Your task to perform on an android device: toggle improve location accuracy Image 0: 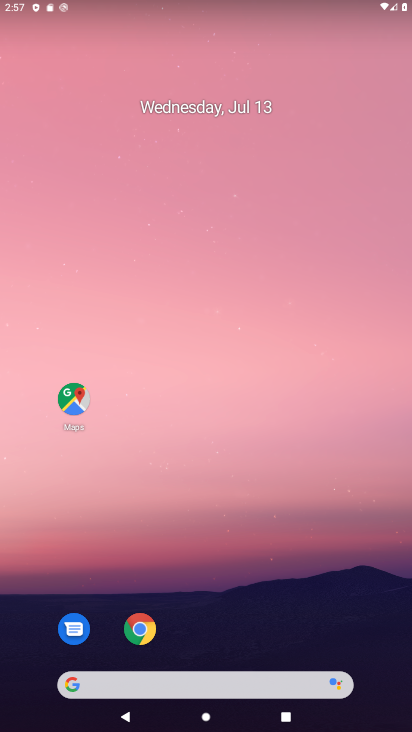
Step 0: drag from (345, 606) to (262, 262)
Your task to perform on an android device: toggle improve location accuracy Image 1: 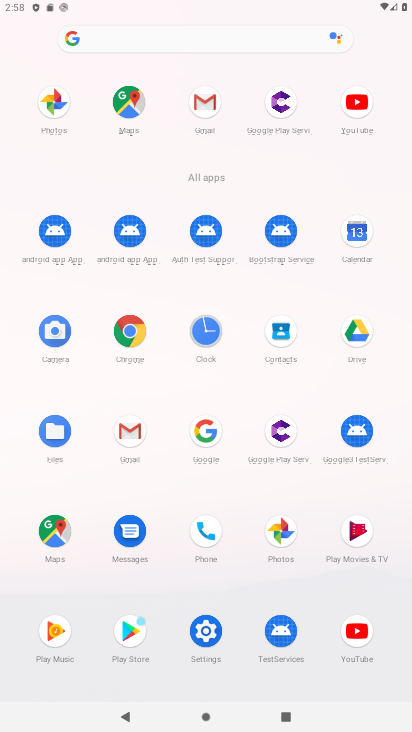
Step 1: click (209, 636)
Your task to perform on an android device: toggle improve location accuracy Image 2: 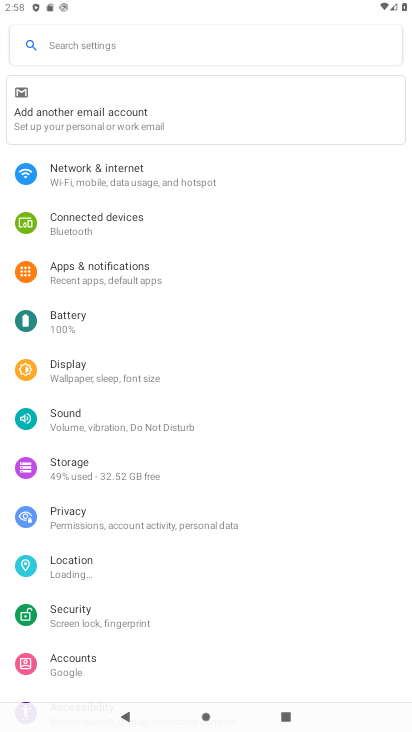
Step 2: click (209, 615)
Your task to perform on an android device: toggle improve location accuracy Image 3: 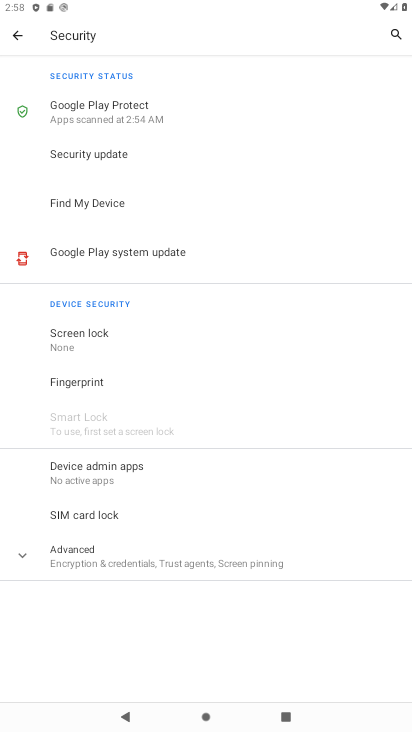
Step 3: drag from (323, 632) to (165, 654)
Your task to perform on an android device: toggle improve location accuracy Image 4: 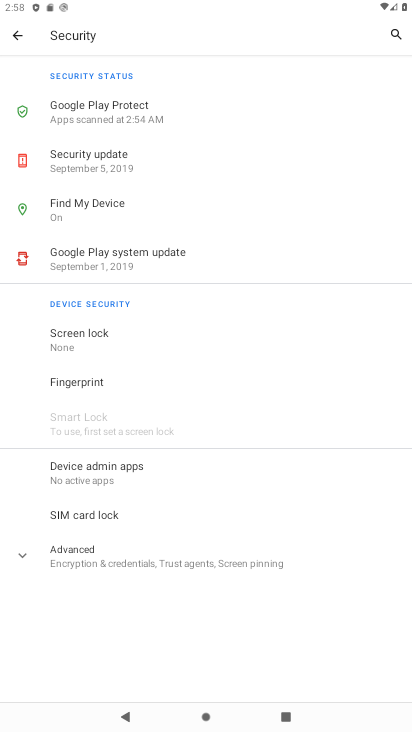
Step 4: press back button
Your task to perform on an android device: toggle improve location accuracy Image 5: 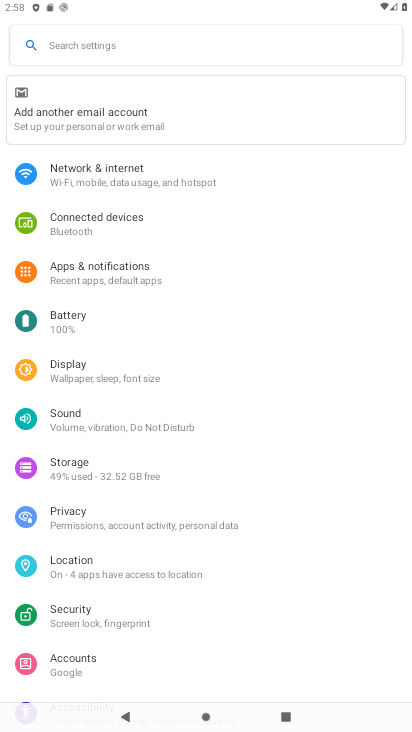
Step 5: drag from (159, 497) to (106, 325)
Your task to perform on an android device: toggle improve location accuracy Image 6: 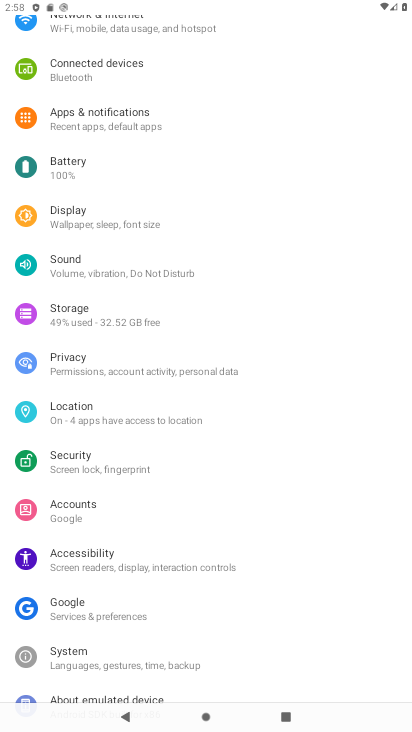
Step 6: click (105, 420)
Your task to perform on an android device: toggle improve location accuracy Image 7: 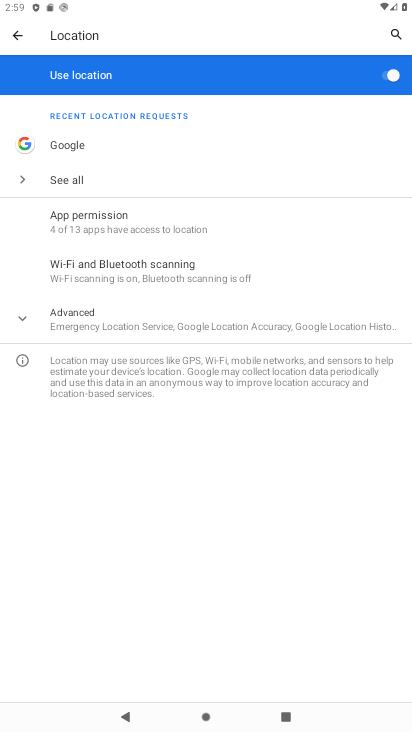
Step 7: click (176, 318)
Your task to perform on an android device: toggle improve location accuracy Image 8: 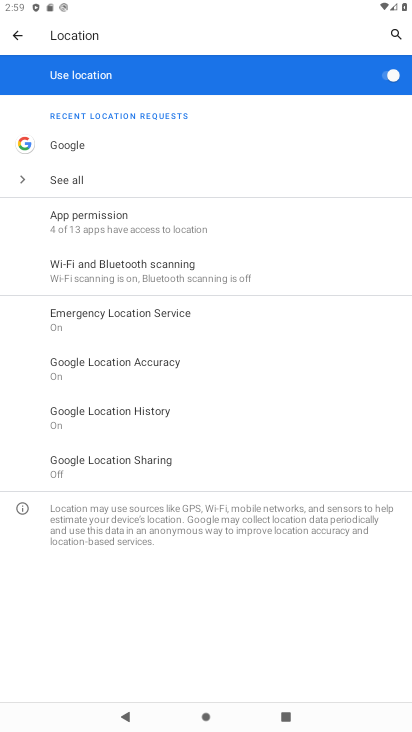
Step 8: click (182, 362)
Your task to perform on an android device: toggle improve location accuracy Image 9: 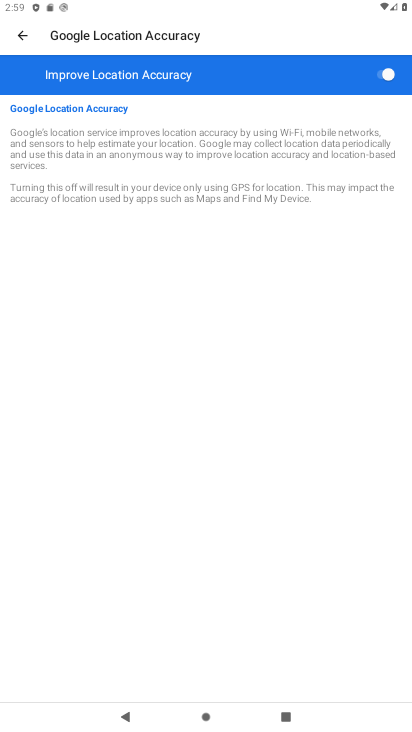
Step 9: click (383, 77)
Your task to perform on an android device: toggle improve location accuracy Image 10: 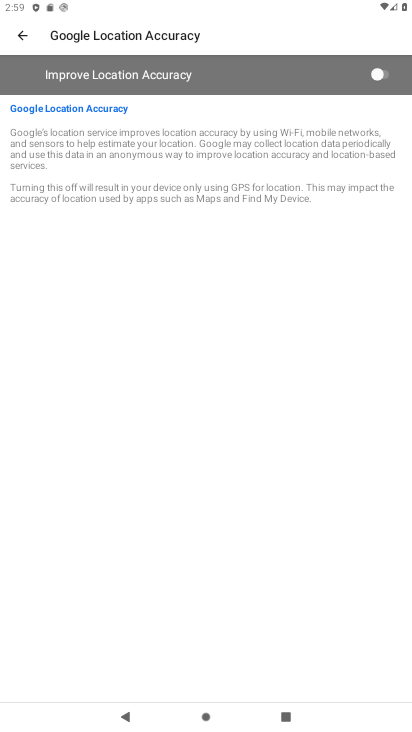
Step 10: task complete